Your task to perform on an android device: turn off notifications in google photos Image 0: 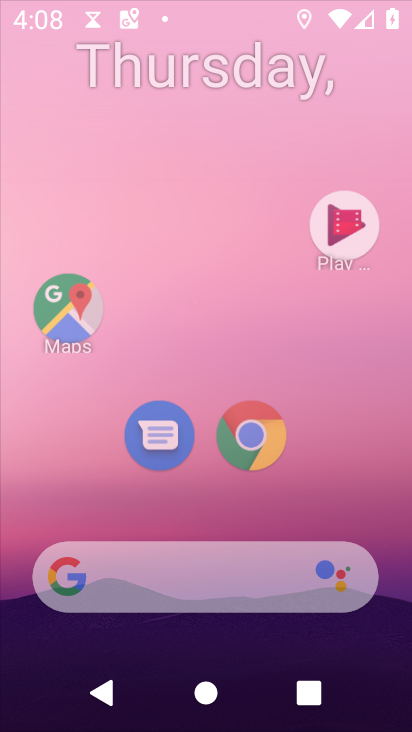
Step 0: click (281, 6)
Your task to perform on an android device: turn off notifications in google photos Image 1: 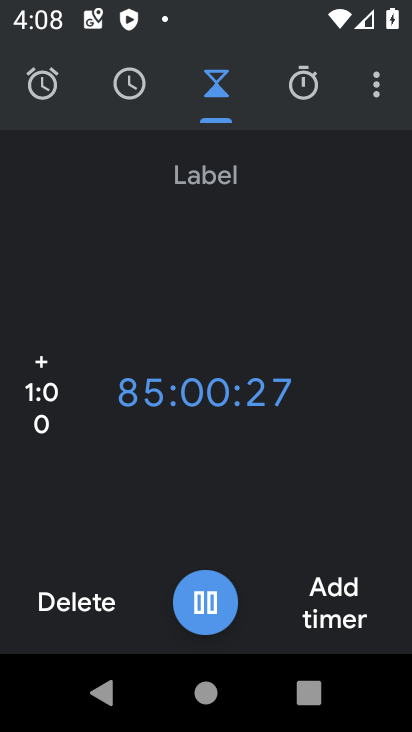
Step 1: press home button
Your task to perform on an android device: turn off notifications in google photos Image 2: 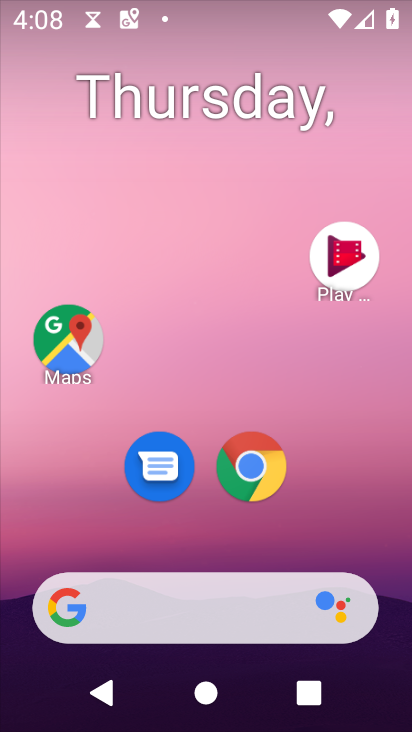
Step 2: drag from (253, 541) to (260, 13)
Your task to perform on an android device: turn off notifications in google photos Image 3: 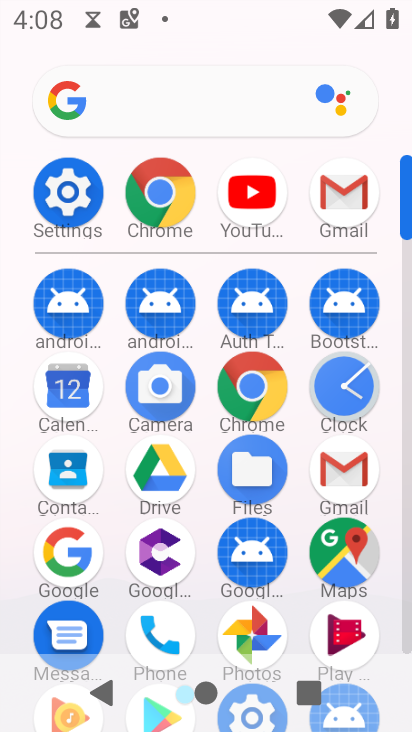
Step 3: click (260, 625)
Your task to perform on an android device: turn off notifications in google photos Image 4: 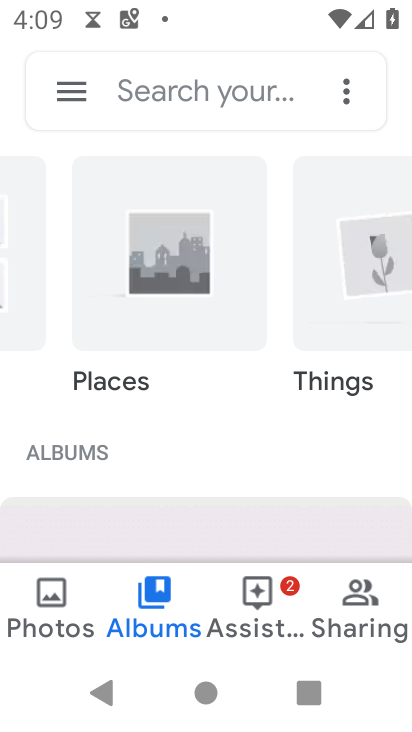
Step 4: click (64, 94)
Your task to perform on an android device: turn off notifications in google photos Image 5: 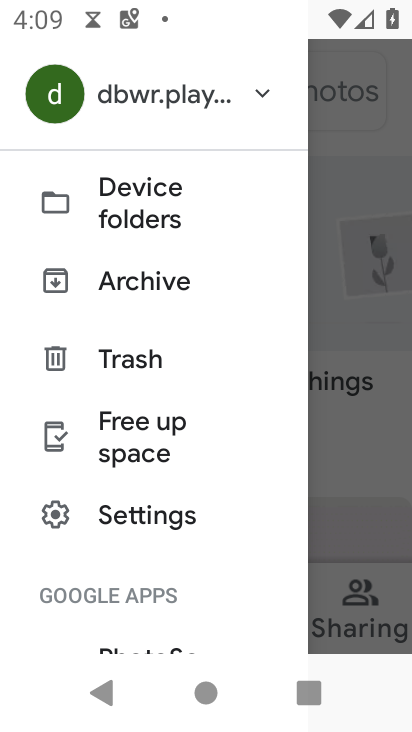
Step 5: drag from (153, 562) to (234, 104)
Your task to perform on an android device: turn off notifications in google photos Image 6: 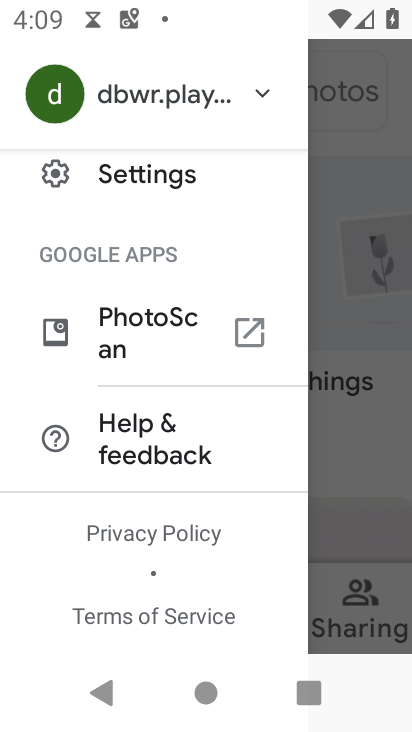
Step 6: drag from (206, 179) to (180, 721)
Your task to perform on an android device: turn off notifications in google photos Image 7: 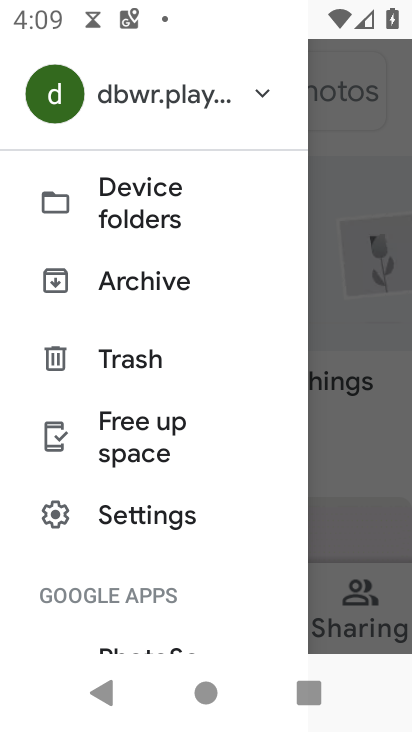
Step 7: drag from (192, 543) to (184, 447)
Your task to perform on an android device: turn off notifications in google photos Image 8: 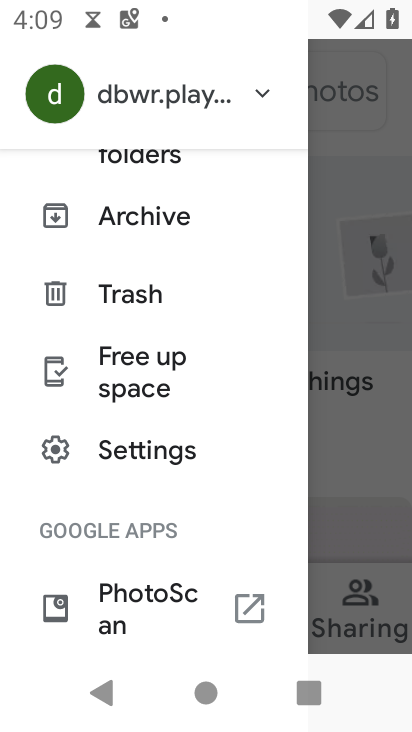
Step 8: click (188, 435)
Your task to perform on an android device: turn off notifications in google photos Image 9: 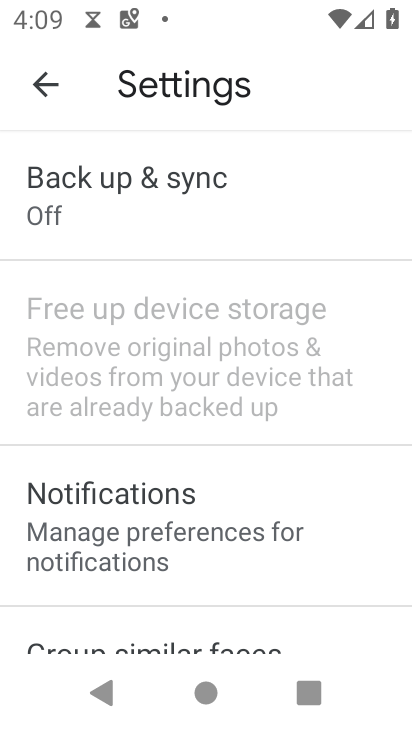
Step 9: click (232, 536)
Your task to perform on an android device: turn off notifications in google photos Image 10: 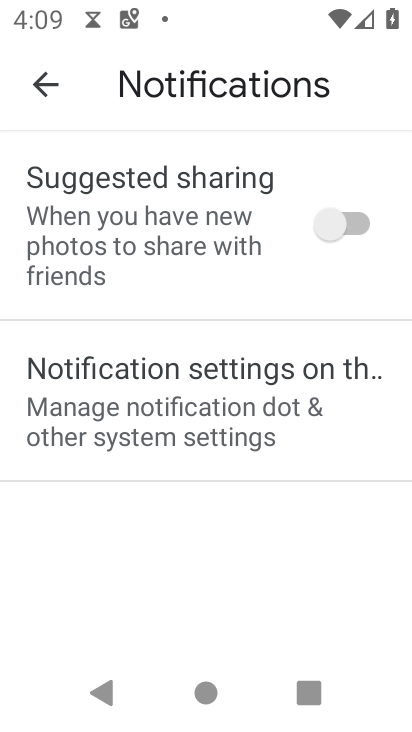
Step 10: click (256, 454)
Your task to perform on an android device: turn off notifications in google photos Image 11: 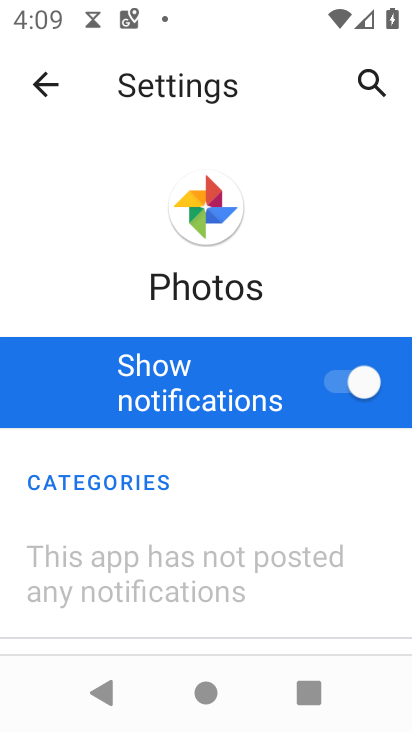
Step 11: click (366, 381)
Your task to perform on an android device: turn off notifications in google photos Image 12: 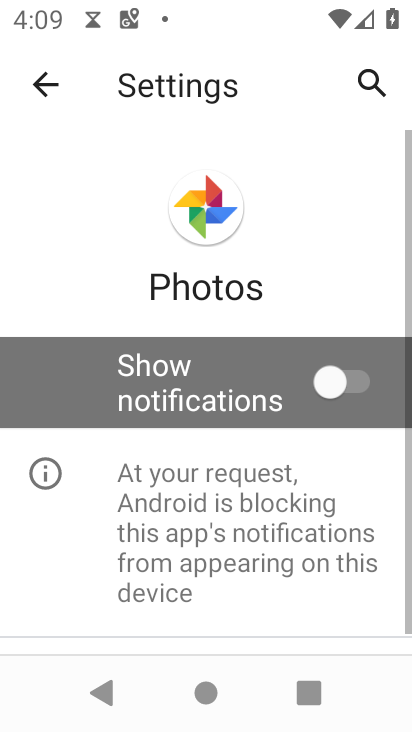
Step 12: task complete